Your task to perform on an android device: turn notification dots on Image 0: 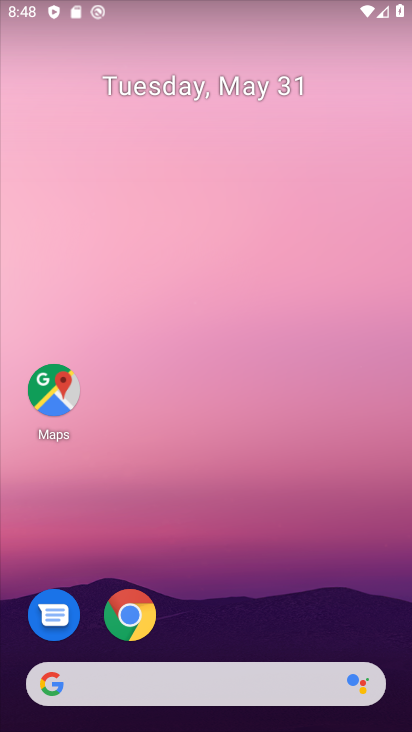
Step 0: drag from (254, 611) to (237, 214)
Your task to perform on an android device: turn notification dots on Image 1: 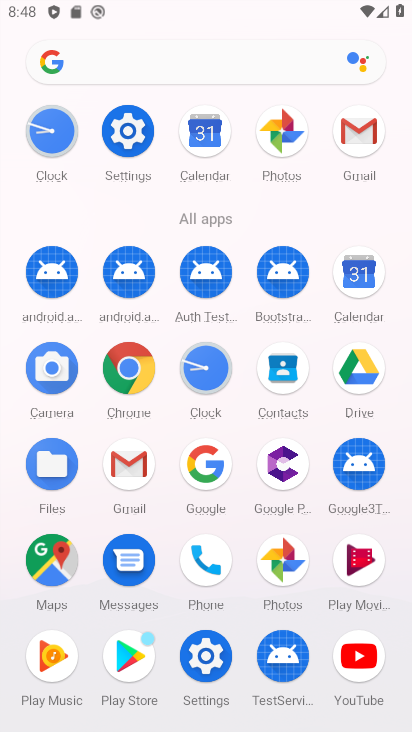
Step 1: click (216, 655)
Your task to perform on an android device: turn notification dots on Image 2: 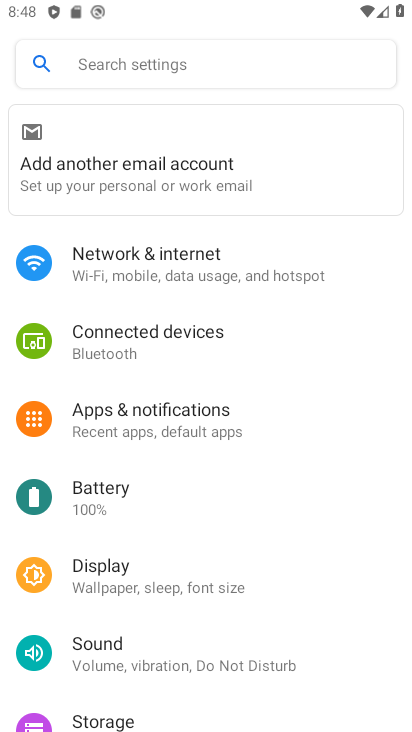
Step 2: click (180, 415)
Your task to perform on an android device: turn notification dots on Image 3: 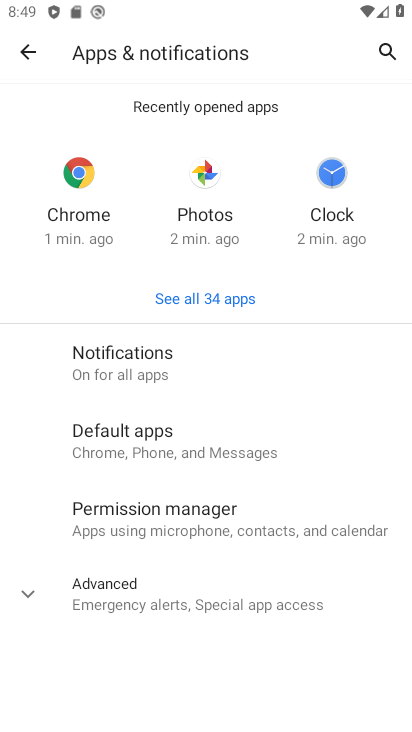
Step 3: drag from (317, 656) to (269, 348)
Your task to perform on an android device: turn notification dots on Image 4: 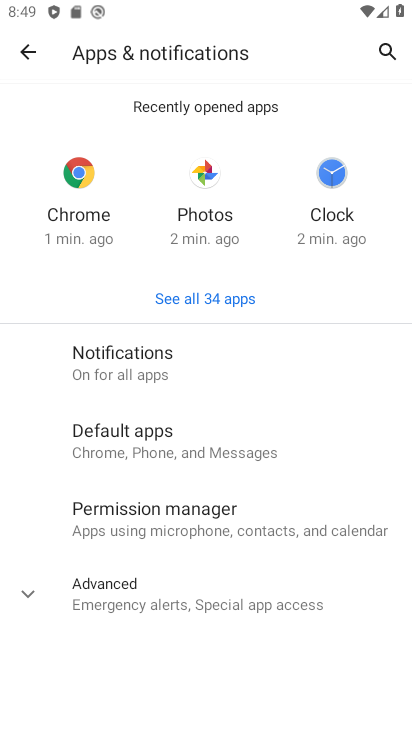
Step 4: click (210, 375)
Your task to perform on an android device: turn notification dots on Image 5: 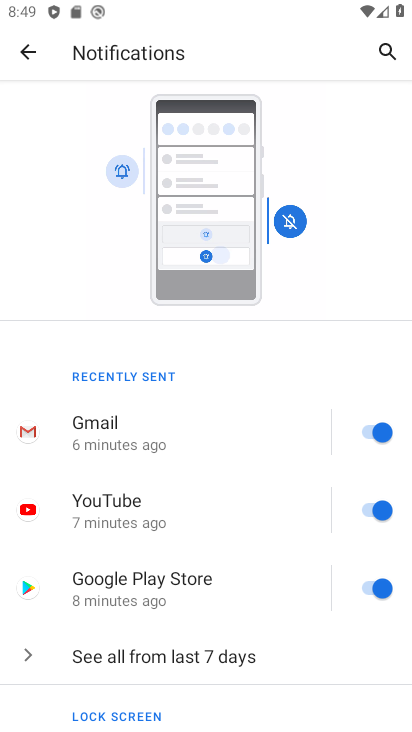
Step 5: drag from (284, 678) to (228, 284)
Your task to perform on an android device: turn notification dots on Image 6: 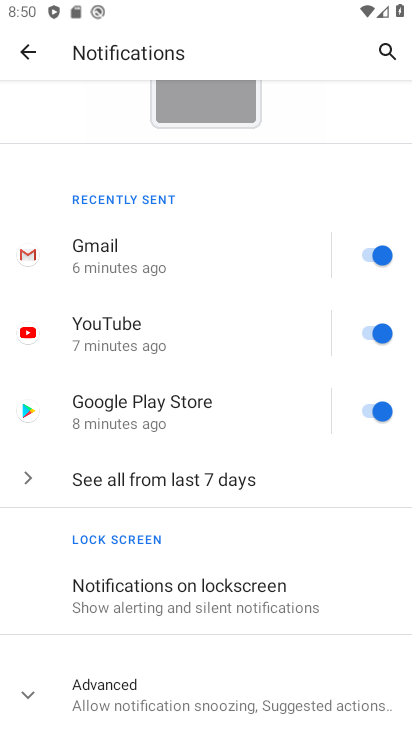
Step 6: click (214, 683)
Your task to perform on an android device: turn notification dots on Image 7: 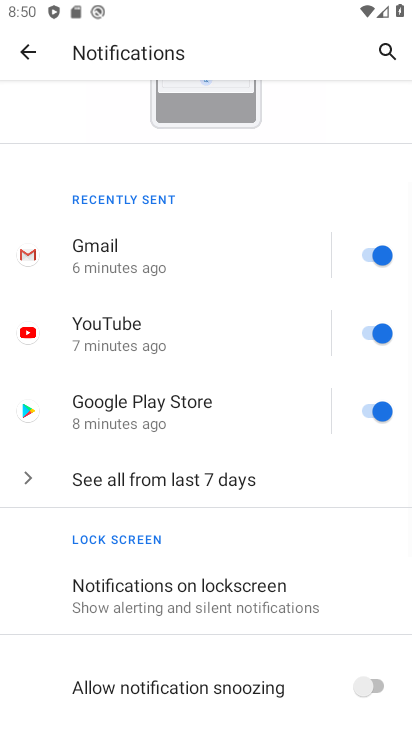
Step 7: task complete